Your task to perform on an android device: What's on my calendar today? Image 0: 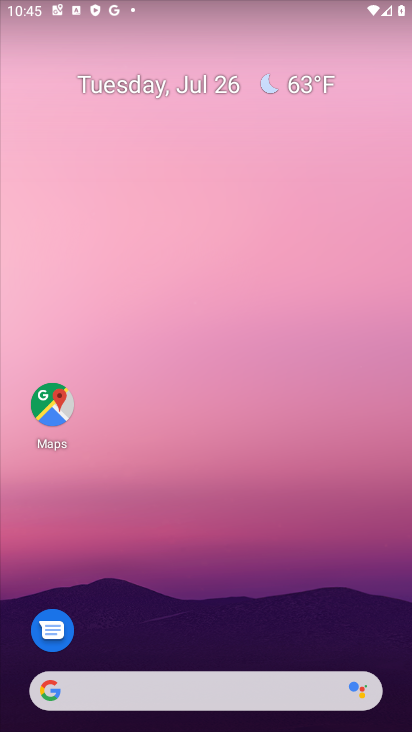
Step 0: drag from (239, 569) to (146, 62)
Your task to perform on an android device: What's on my calendar today? Image 1: 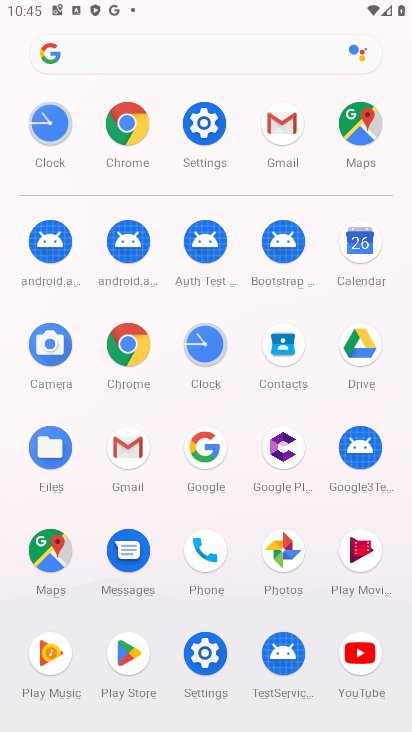
Step 1: click (356, 248)
Your task to perform on an android device: What's on my calendar today? Image 2: 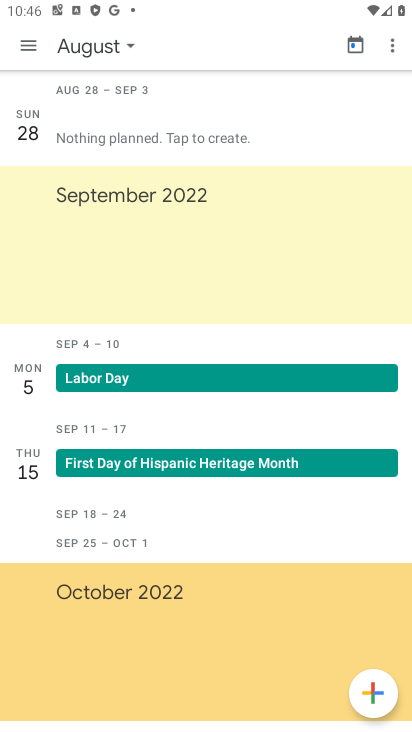
Step 2: click (72, 45)
Your task to perform on an android device: What's on my calendar today? Image 3: 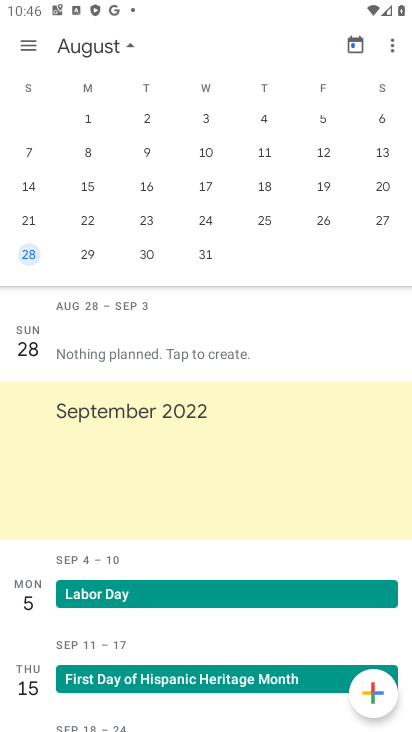
Step 3: click (32, 250)
Your task to perform on an android device: What's on my calendar today? Image 4: 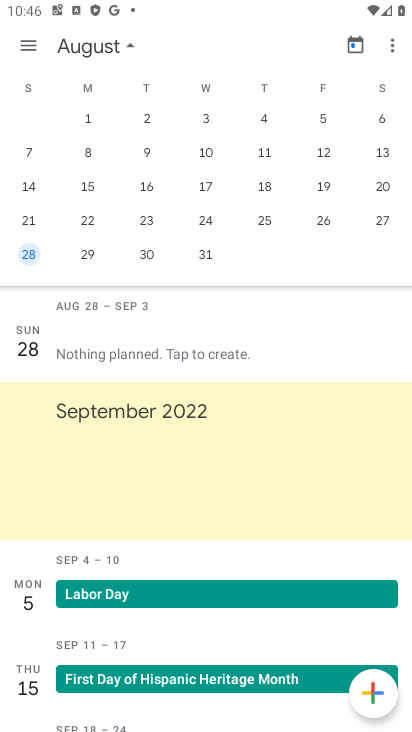
Step 4: task complete